Your task to perform on an android device: Open my contact list Image 0: 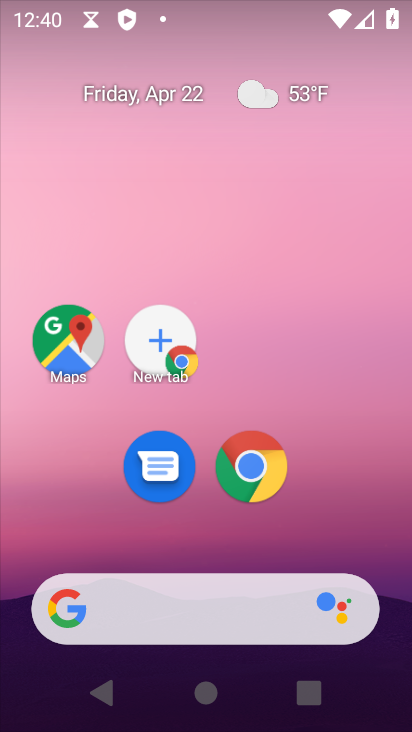
Step 0: drag from (396, 607) to (347, 9)
Your task to perform on an android device: Open my contact list Image 1: 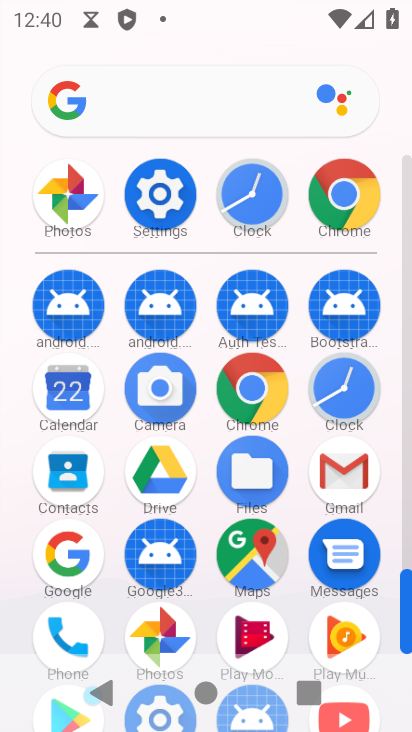
Step 1: drag from (11, 580) to (15, 315)
Your task to perform on an android device: Open my contact list Image 2: 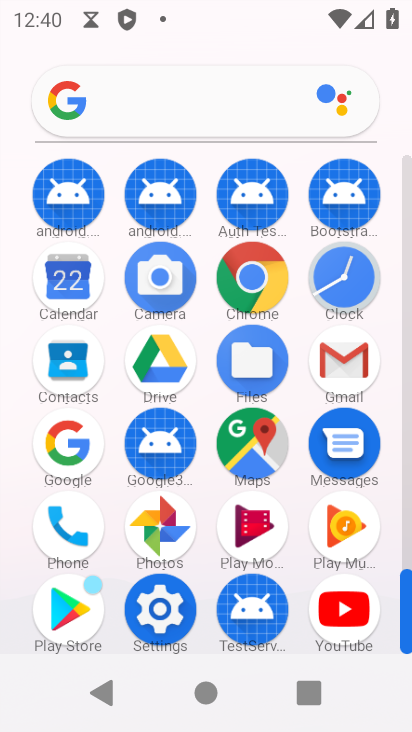
Step 2: drag from (19, 572) to (26, 372)
Your task to perform on an android device: Open my contact list Image 3: 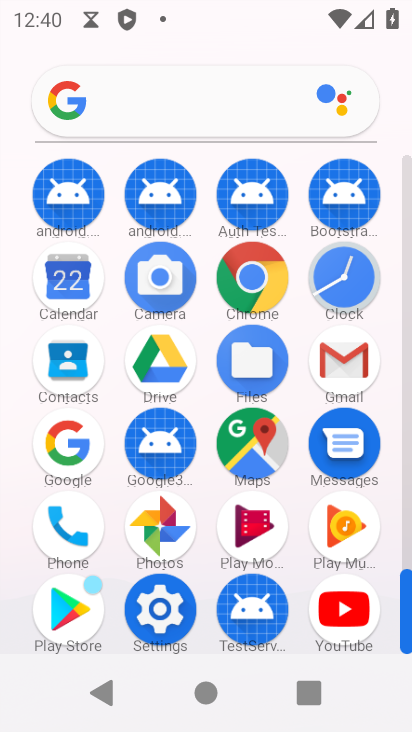
Step 3: drag from (16, 406) to (19, 257)
Your task to perform on an android device: Open my contact list Image 4: 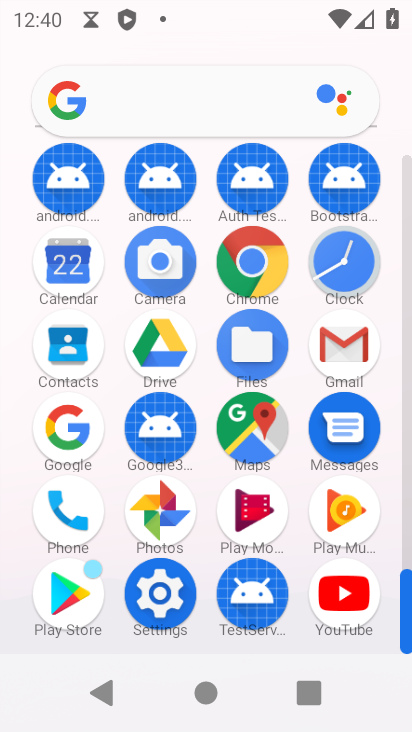
Step 4: click (19, 257)
Your task to perform on an android device: Open my contact list Image 5: 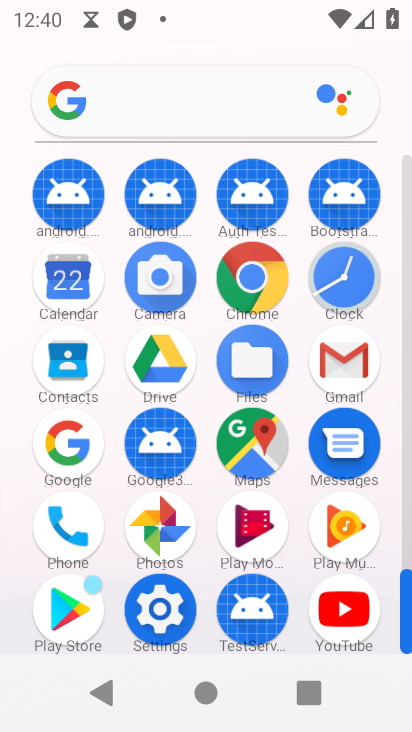
Step 5: click (70, 353)
Your task to perform on an android device: Open my contact list Image 6: 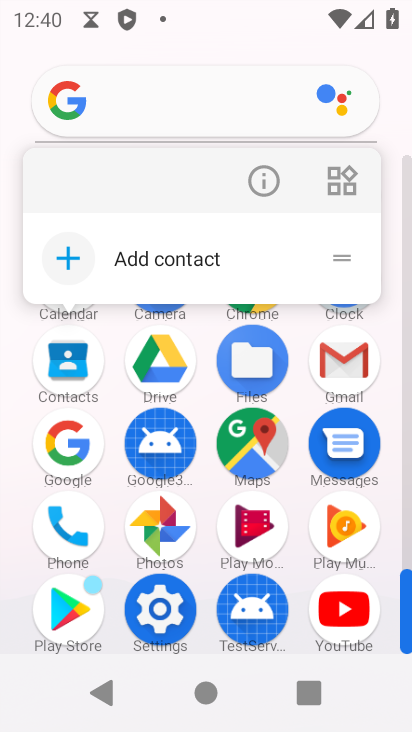
Step 6: click (70, 353)
Your task to perform on an android device: Open my contact list Image 7: 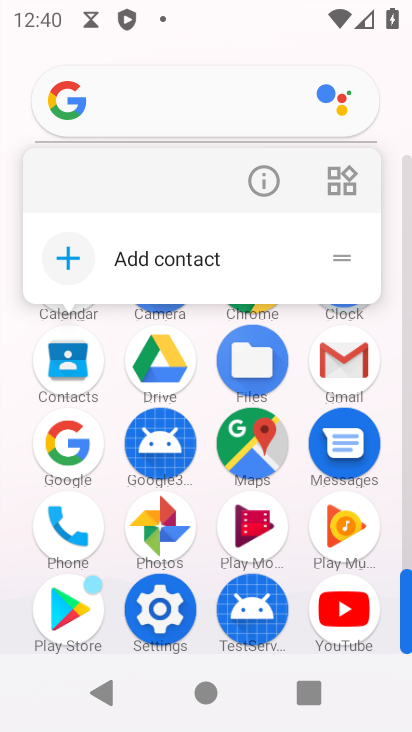
Step 7: click (70, 353)
Your task to perform on an android device: Open my contact list Image 8: 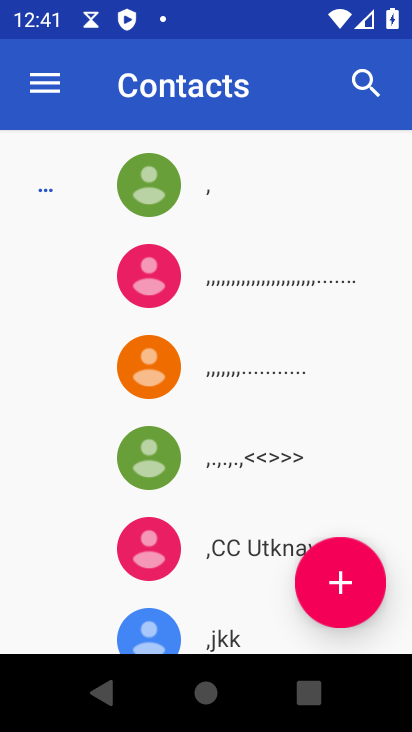
Step 8: task complete